Your task to perform on an android device: change notifications settings Image 0: 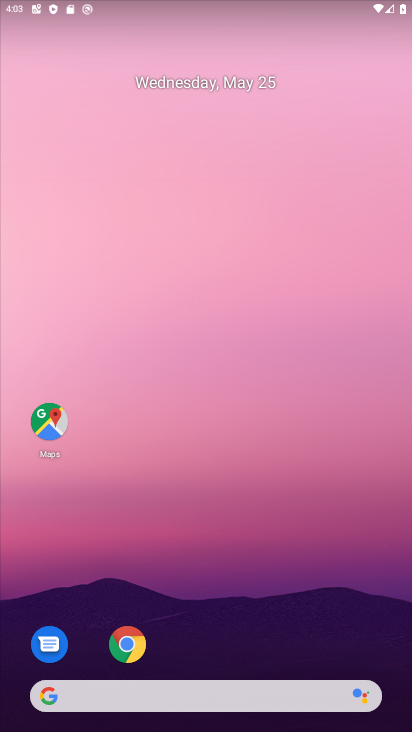
Step 0: drag from (285, 660) to (286, 5)
Your task to perform on an android device: change notifications settings Image 1: 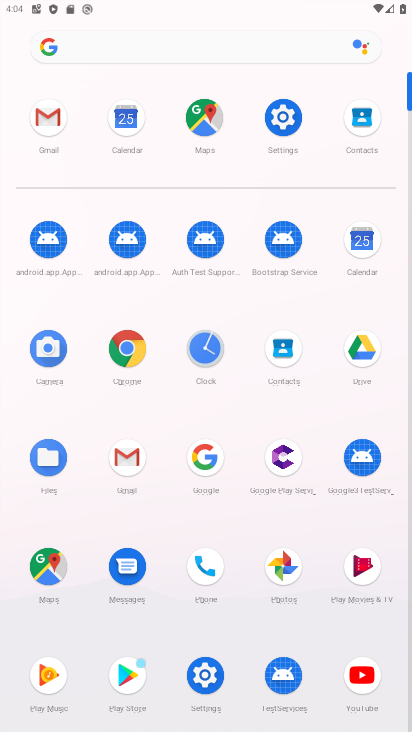
Step 1: click (278, 119)
Your task to perform on an android device: change notifications settings Image 2: 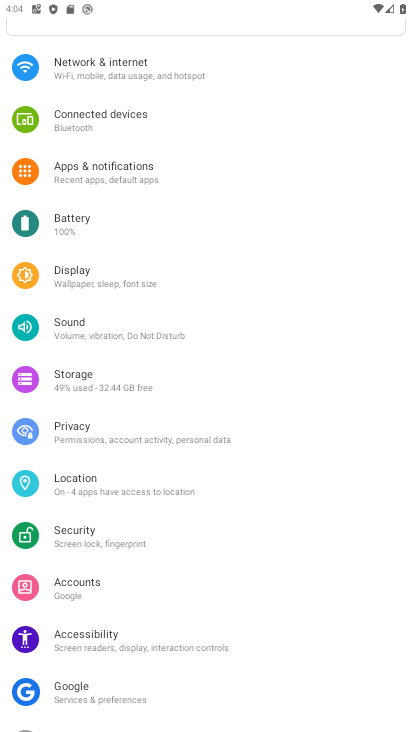
Step 2: click (95, 178)
Your task to perform on an android device: change notifications settings Image 3: 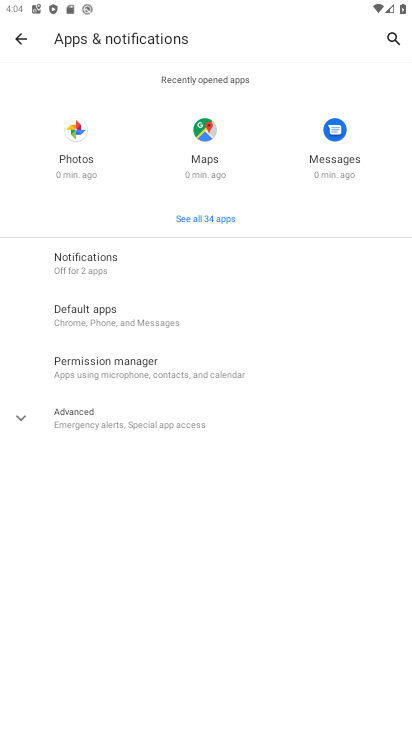
Step 3: click (67, 263)
Your task to perform on an android device: change notifications settings Image 4: 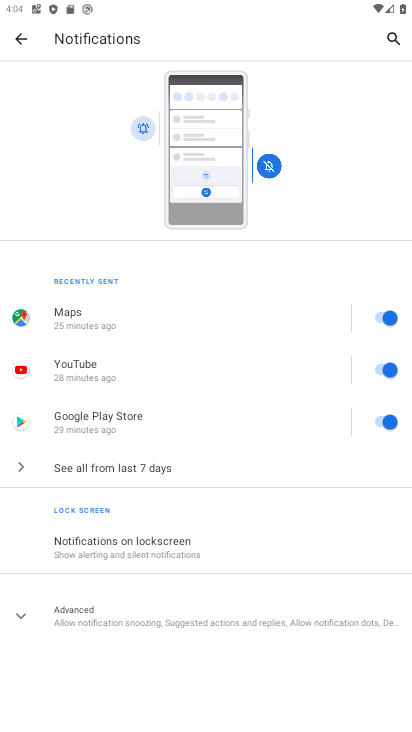
Step 4: click (112, 475)
Your task to perform on an android device: change notifications settings Image 5: 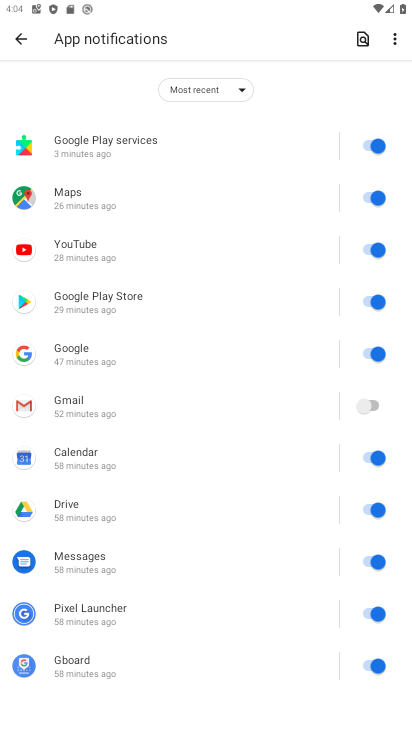
Step 5: click (242, 90)
Your task to perform on an android device: change notifications settings Image 6: 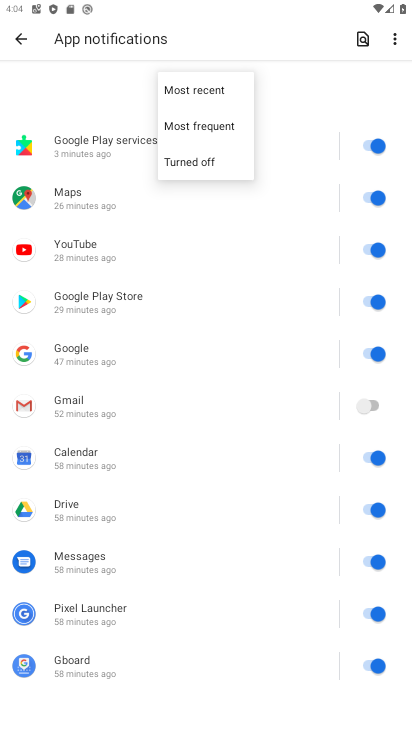
Step 6: click (194, 132)
Your task to perform on an android device: change notifications settings Image 7: 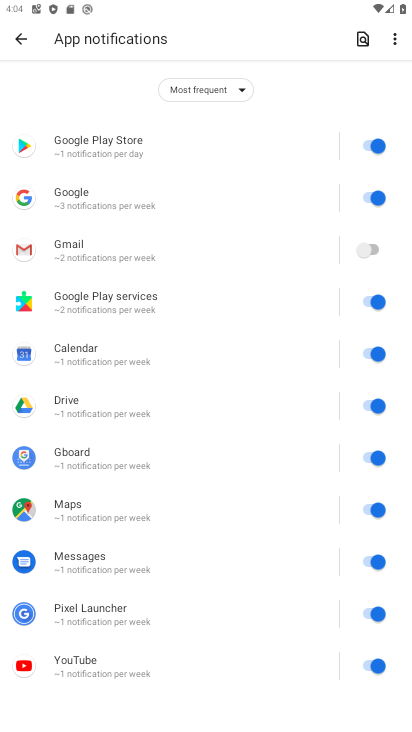
Step 7: task complete